Your task to perform on an android device: Open notification settings Image 0: 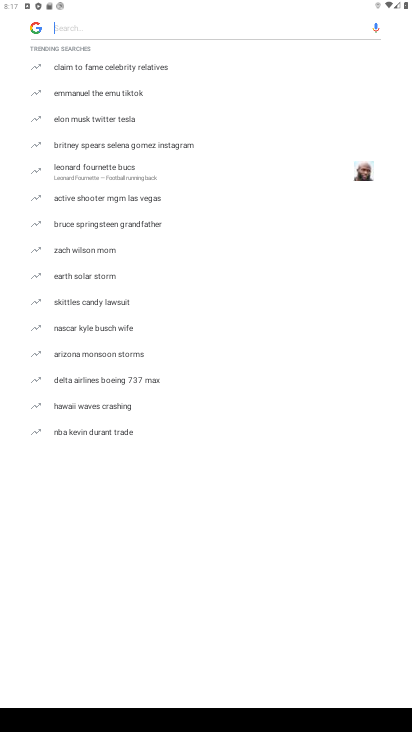
Step 0: press home button
Your task to perform on an android device: Open notification settings Image 1: 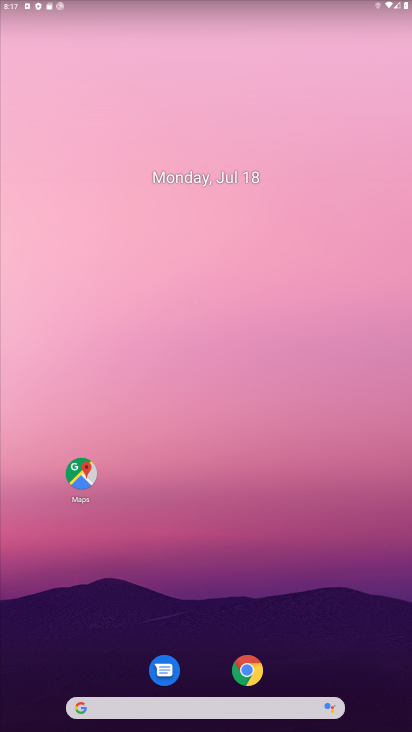
Step 1: drag from (189, 539) to (183, 155)
Your task to perform on an android device: Open notification settings Image 2: 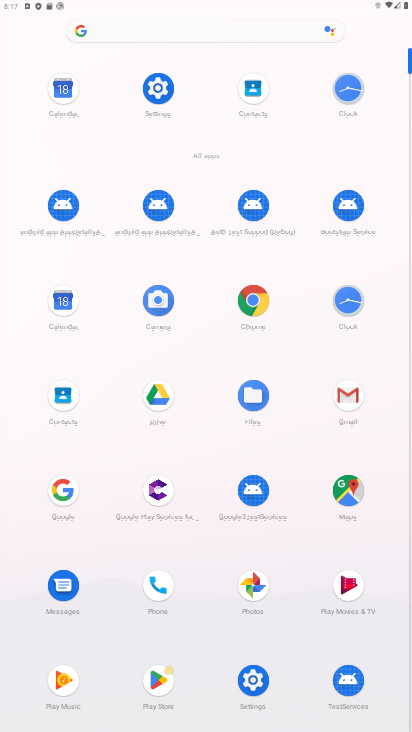
Step 2: click (158, 85)
Your task to perform on an android device: Open notification settings Image 3: 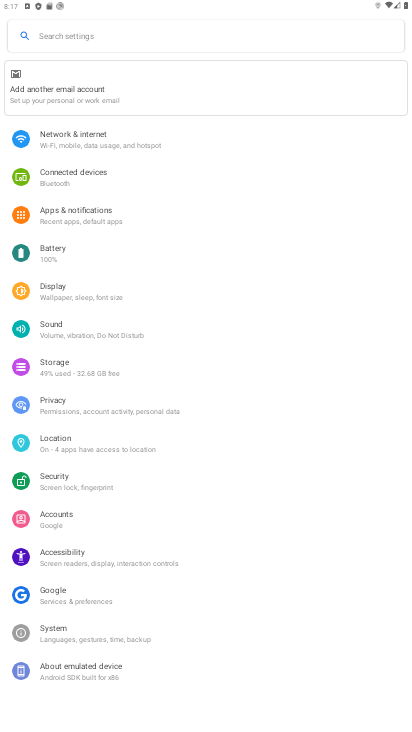
Step 3: click (79, 213)
Your task to perform on an android device: Open notification settings Image 4: 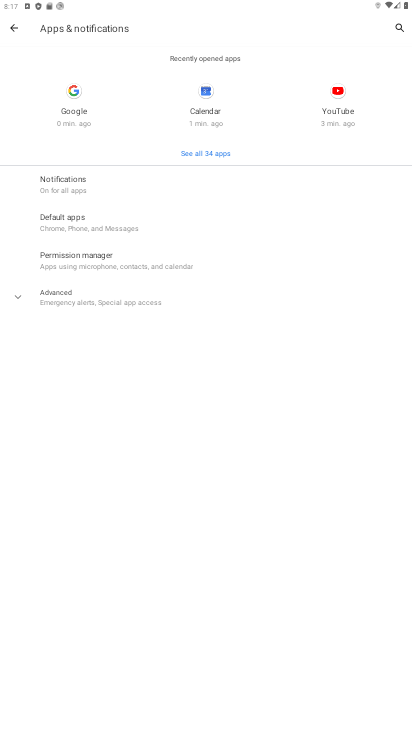
Step 4: task complete